Your task to perform on an android device: Go to calendar. Show me events next week Image 0: 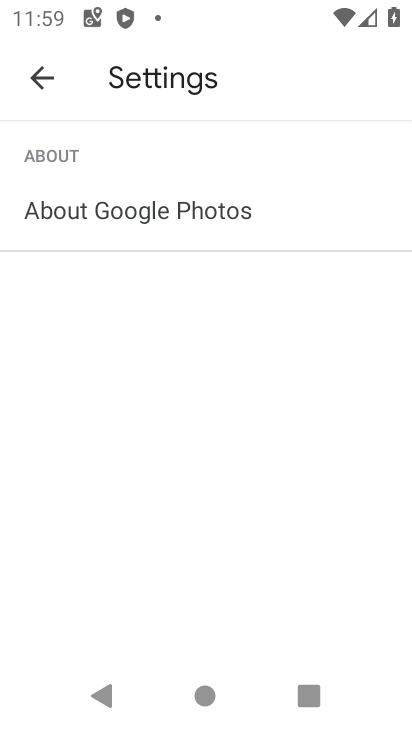
Step 0: press back button
Your task to perform on an android device: Go to calendar. Show me events next week Image 1: 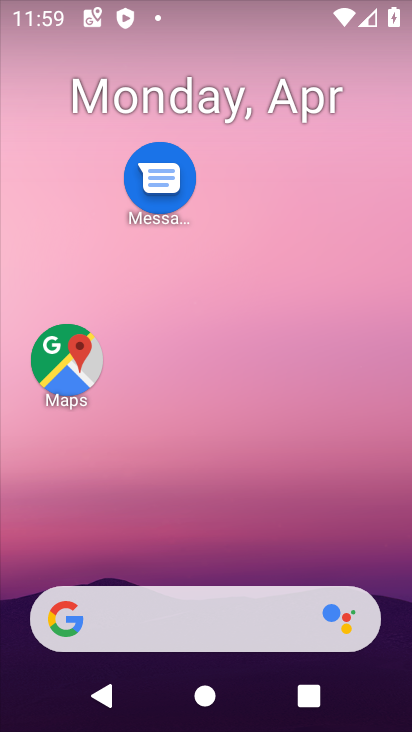
Step 1: drag from (215, 718) to (211, 80)
Your task to perform on an android device: Go to calendar. Show me events next week Image 2: 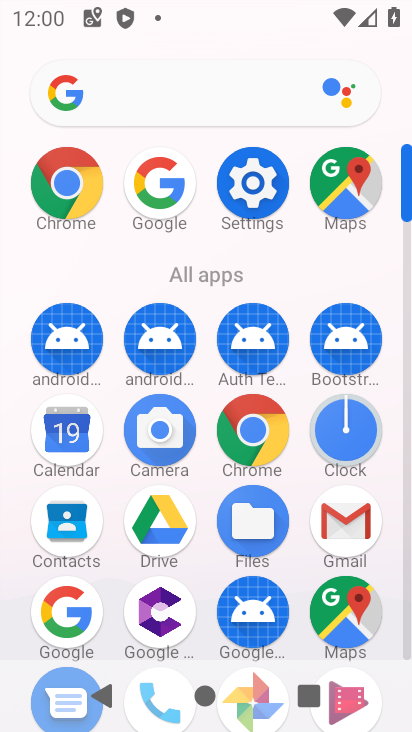
Step 2: click (64, 437)
Your task to perform on an android device: Go to calendar. Show me events next week Image 3: 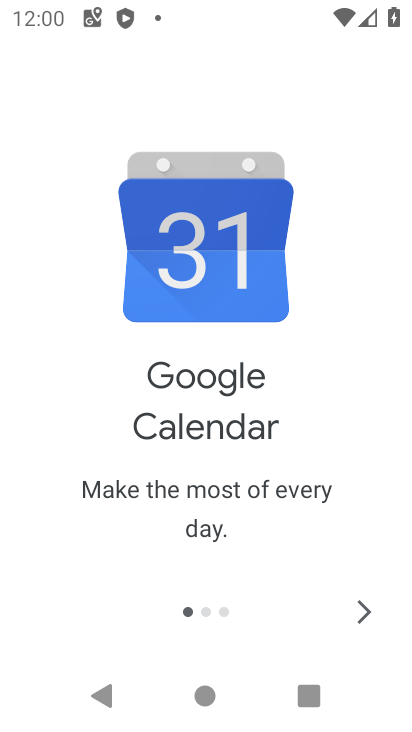
Step 3: click (358, 603)
Your task to perform on an android device: Go to calendar. Show me events next week Image 4: 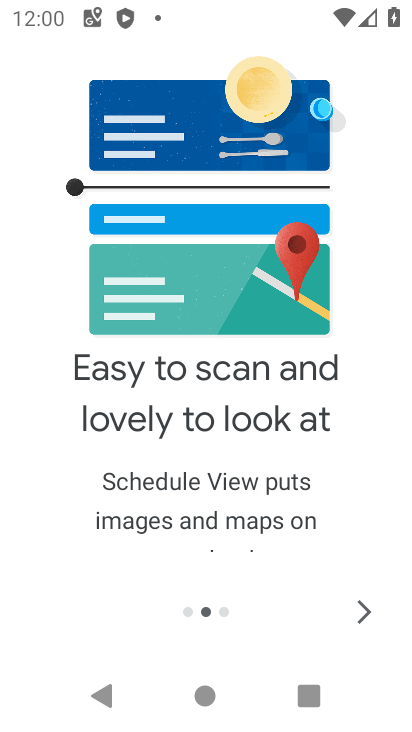
Step 4: click (355, 609)
Your task to perform on an android device: Go to calendar. Show me events next week Image 5: 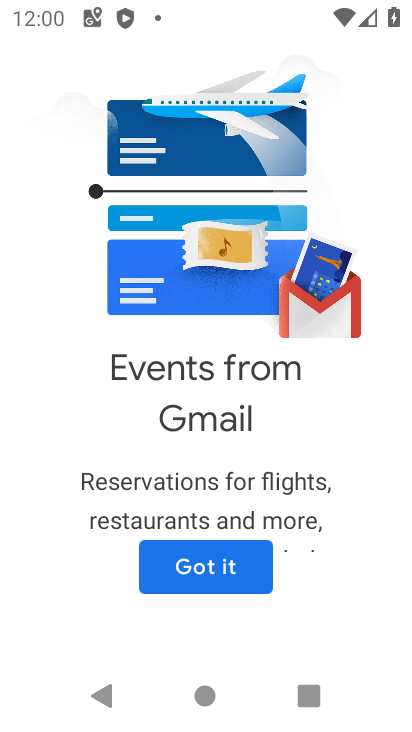
Step 5: click (218, 561)
Your task to perform on an android device: Go to calendar. Show me events next week Image 6: 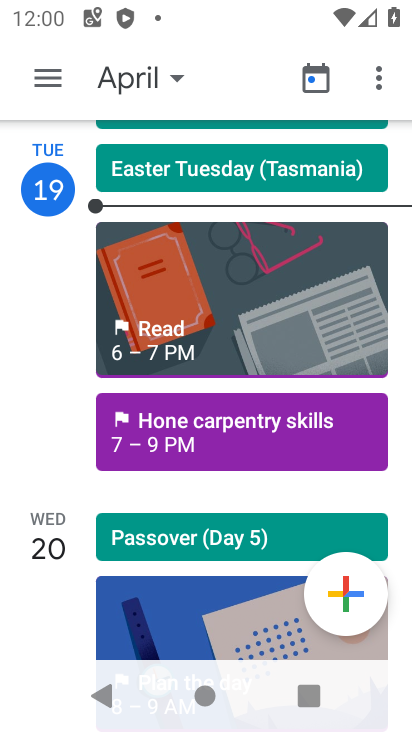
Step 6: click (119, 69)
Your task to perform on an android device: Go to calendar. Show me events next week Image 7: 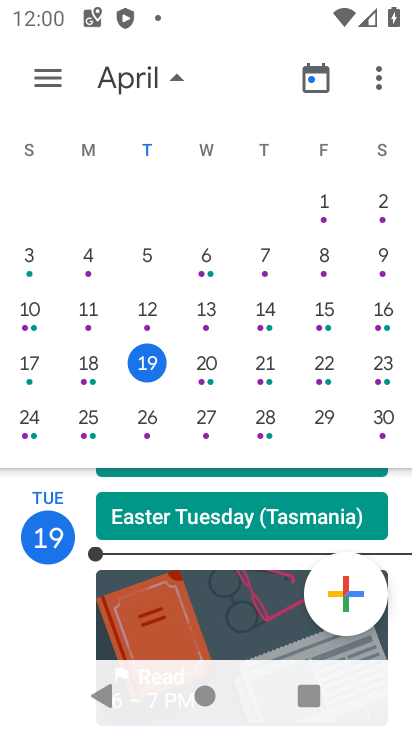
Step 7: click (88, 412)
Your task to perform on an android device: Go to calendar. Show me events next week Image 8: 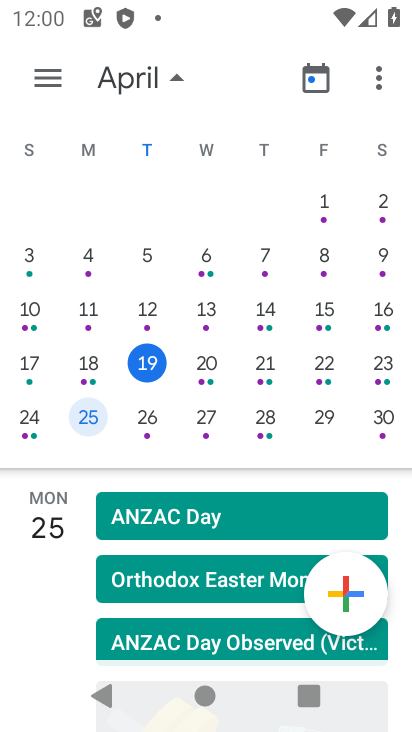
Step 8: click (46, 75)
Your task to perform on an android device: Go to calendar. Show me events next week Image 9: 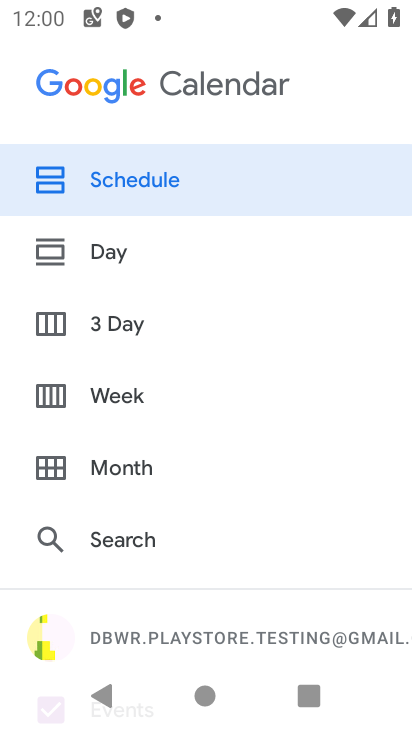
Step 9: drag from (127, 581) to (110, 213)
Your task to perform on an android device: Go to calendar. Show me events next week Image 10: 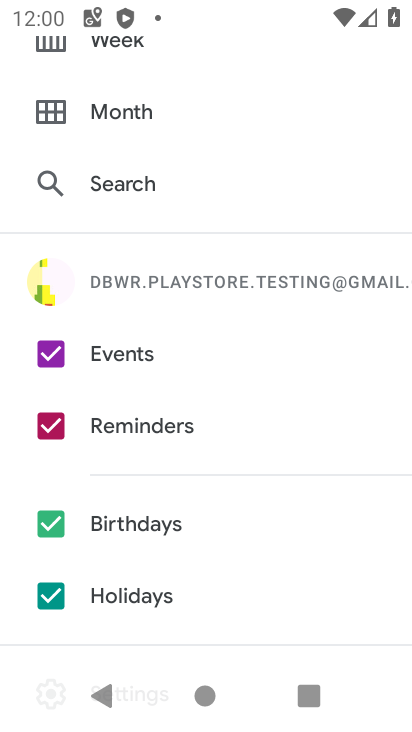
Step 10: click (56, 595)
Your task to perform on an android device: Go to calendar. Show me events next week Image 11: 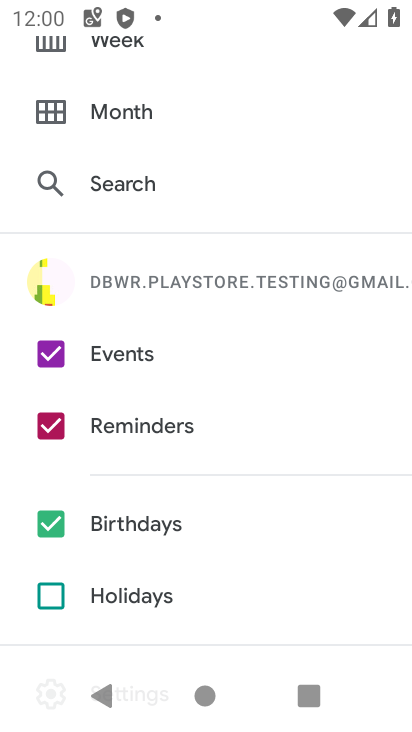
Step 11: click (51, 524)
Your task to perform on an android device: Go to calendar. Show me events next week Image 12: 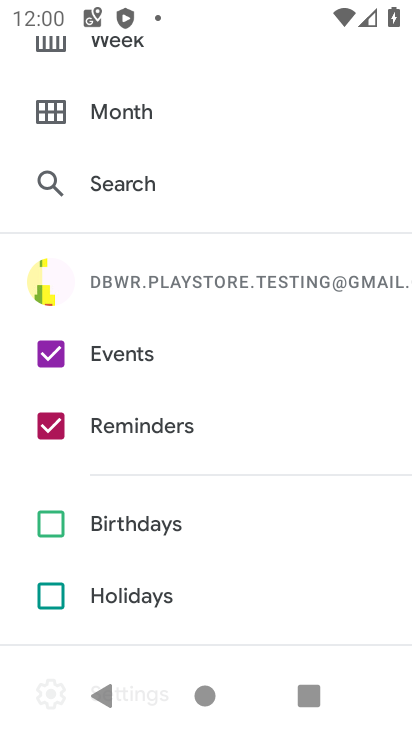
Step 12: click (53, 425)
Your task to perform on an android device: Go to calendar. Show me events next week Image 13: 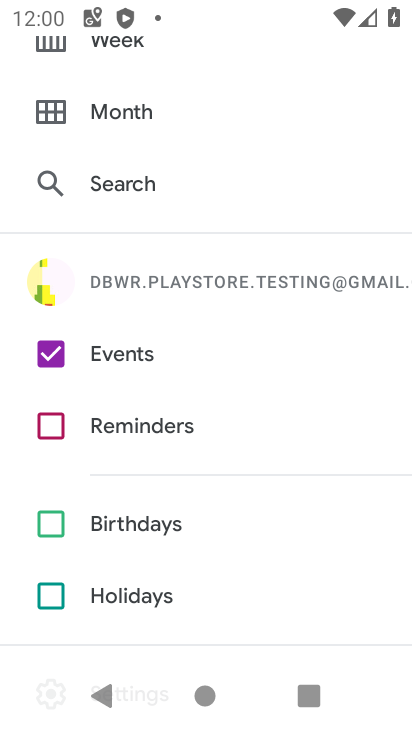
Step 13: drag from (247, 167) to (220, 589)
Your task to perform on an android device: Go to calendar. Show me events next week Image 14: 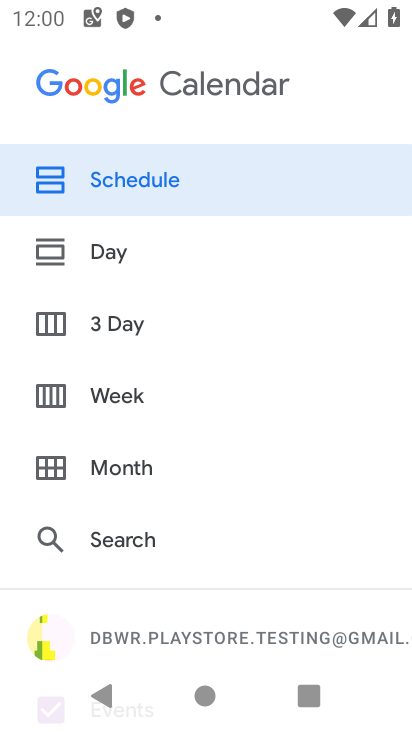
Step 14: click (140, 181)
Your task to perform on an android device: Go to calendar. Show me events next week Image 15: 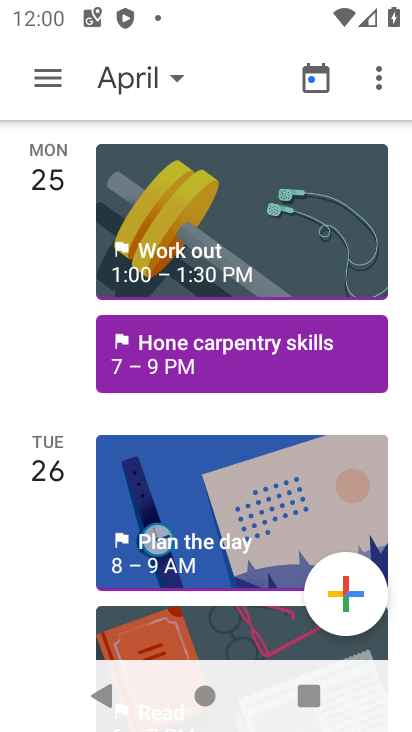
Step 15: task complete